Your task to perform on an android device: Search for logitech g pro on amazon, select the first entry, and add it to the cart. Image 0: 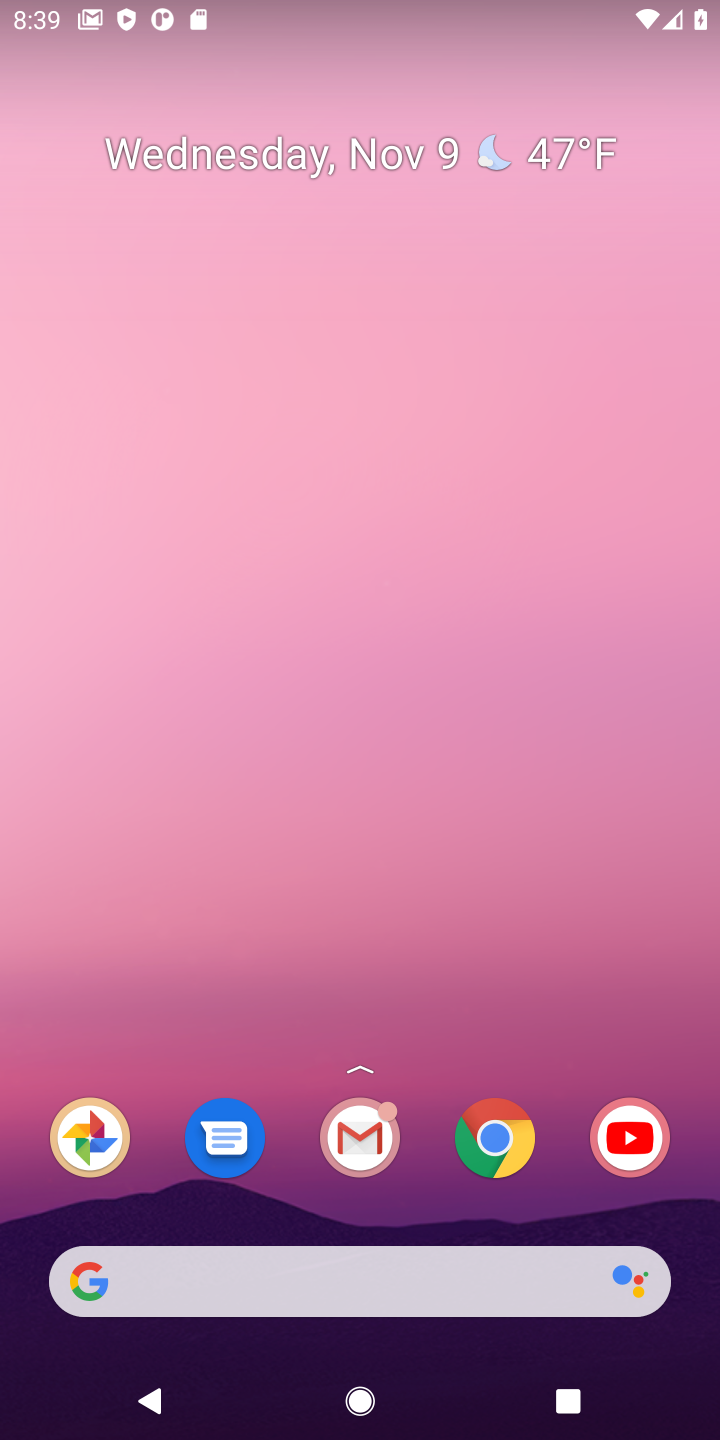
Step 0: drag from (379, 375) to (653, 1)
Your task to perform on an android device: Search for logitech g pro on amazon, select the first entry, and add it to the cart. Image 1: 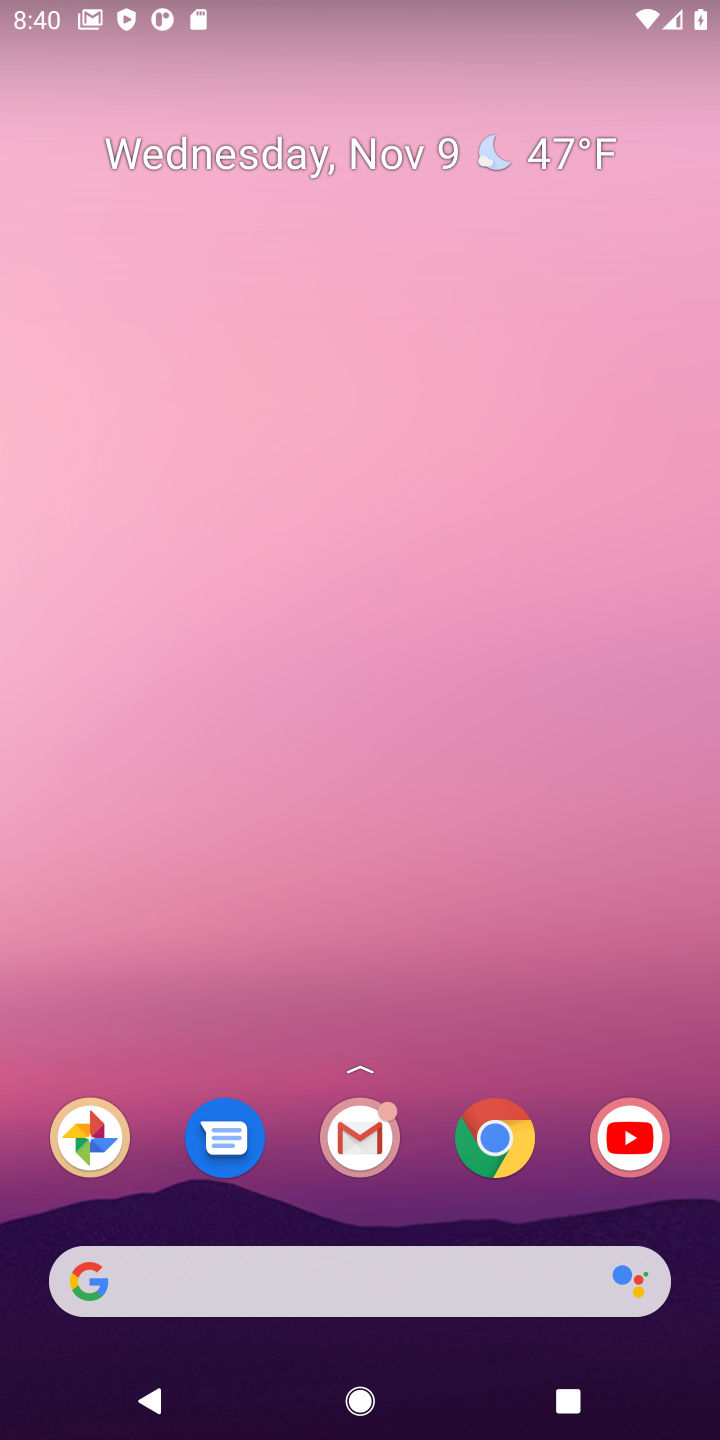
Step 1: drag from (416, 1089) to (132, 7)
Your task to perform on an android device: Search for logitech g pro on amazon, select the first entry, and add it to the cart. Image 2: 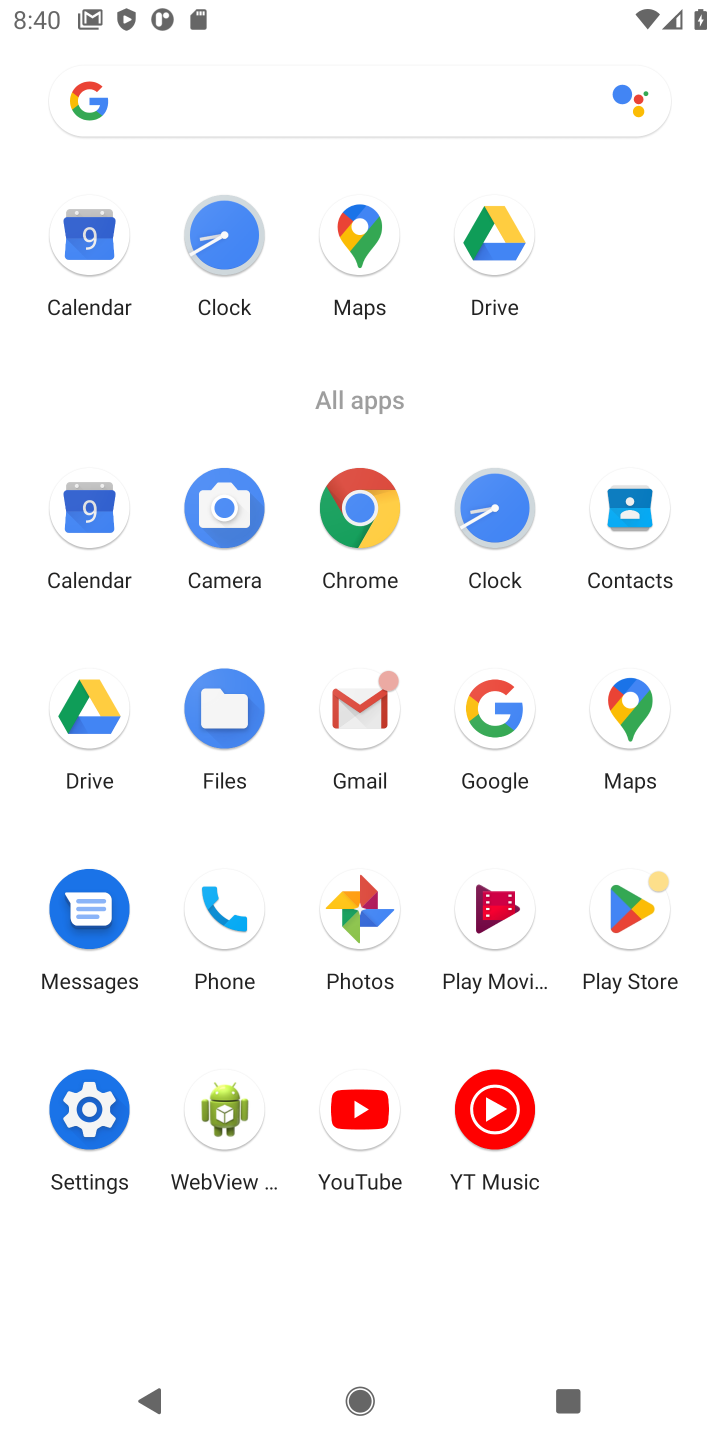
Step 2: click (345, 512)
Your task to perform on an android device: Search for logitech g pro on amazon, select the first entry, and add it to the cart. Image 3: 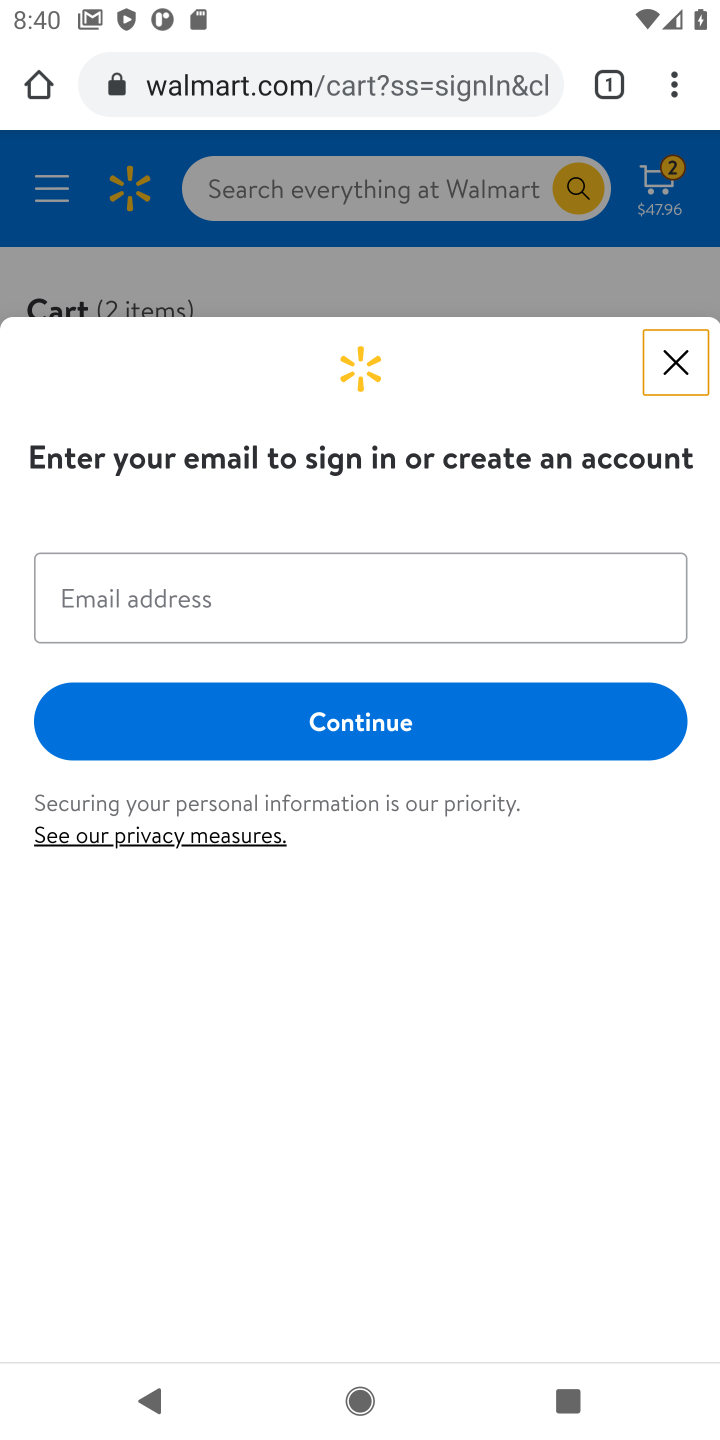
Step 3: click (430, 101)
Your task to perform on an android device: Search for logitech g pro on amazon, select the first entry, and add it to the cart. Image 4: 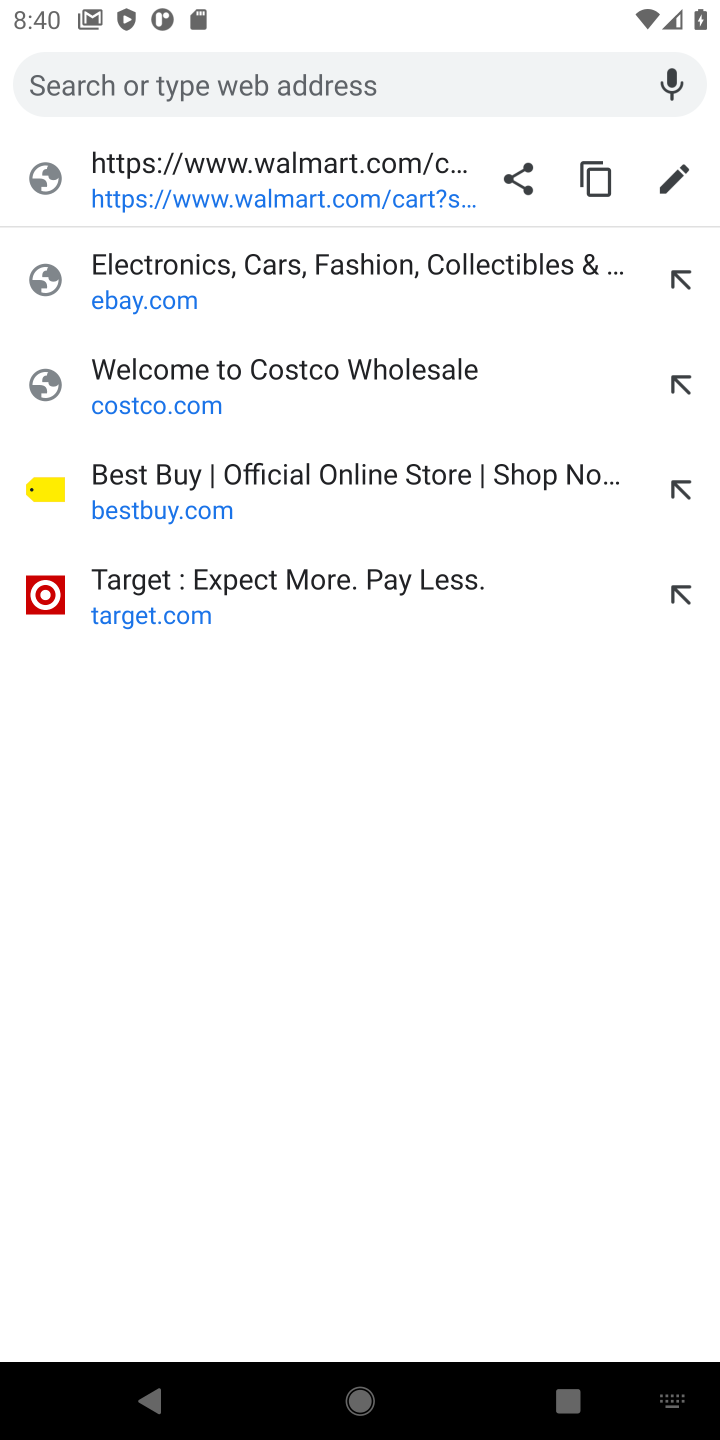
Step 4: type "amazon.com"
Your task to perform on an android device: Search for logitech g pro on amazon, select the first entry, and add it to the cart. Image 5: 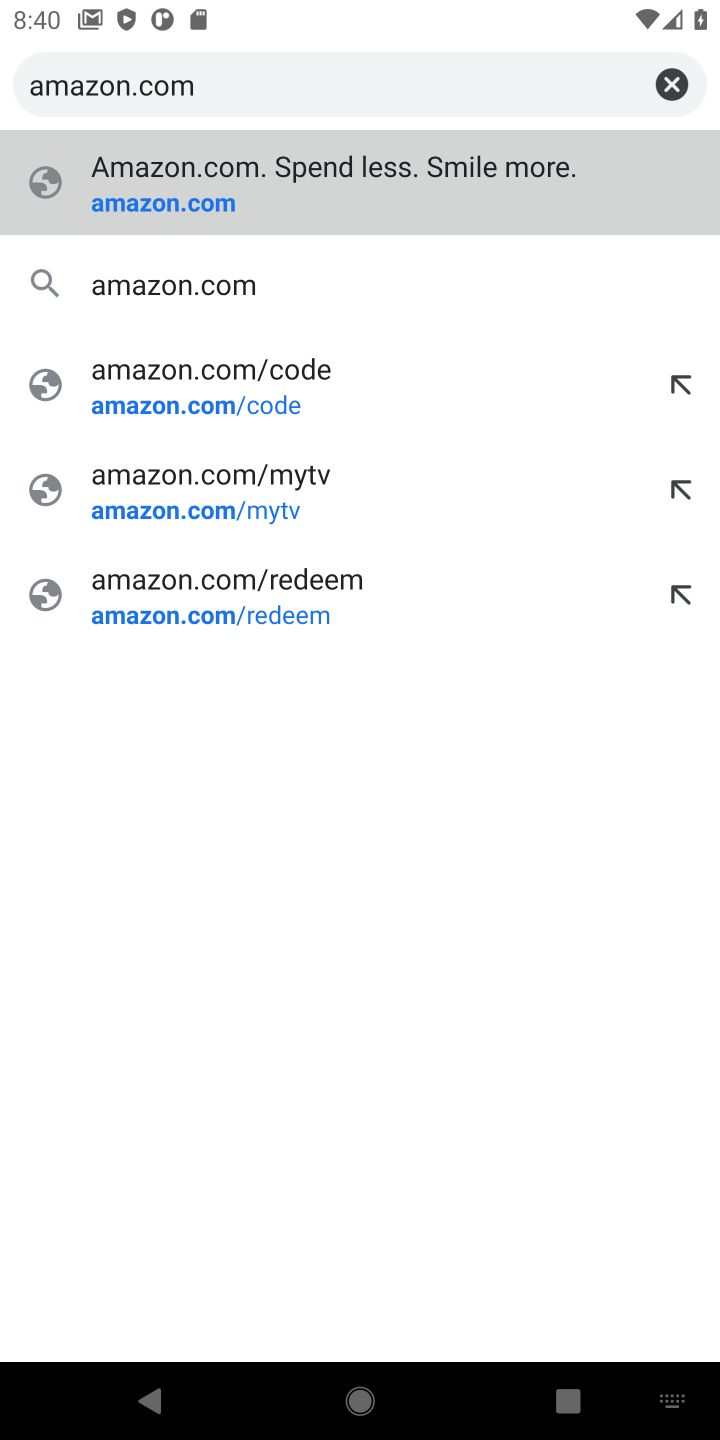
Step 5: press enter
Your task to perform on an android device: Search for logitech g pro on amazon, select the first entry, and add it to the cart. Image 6: 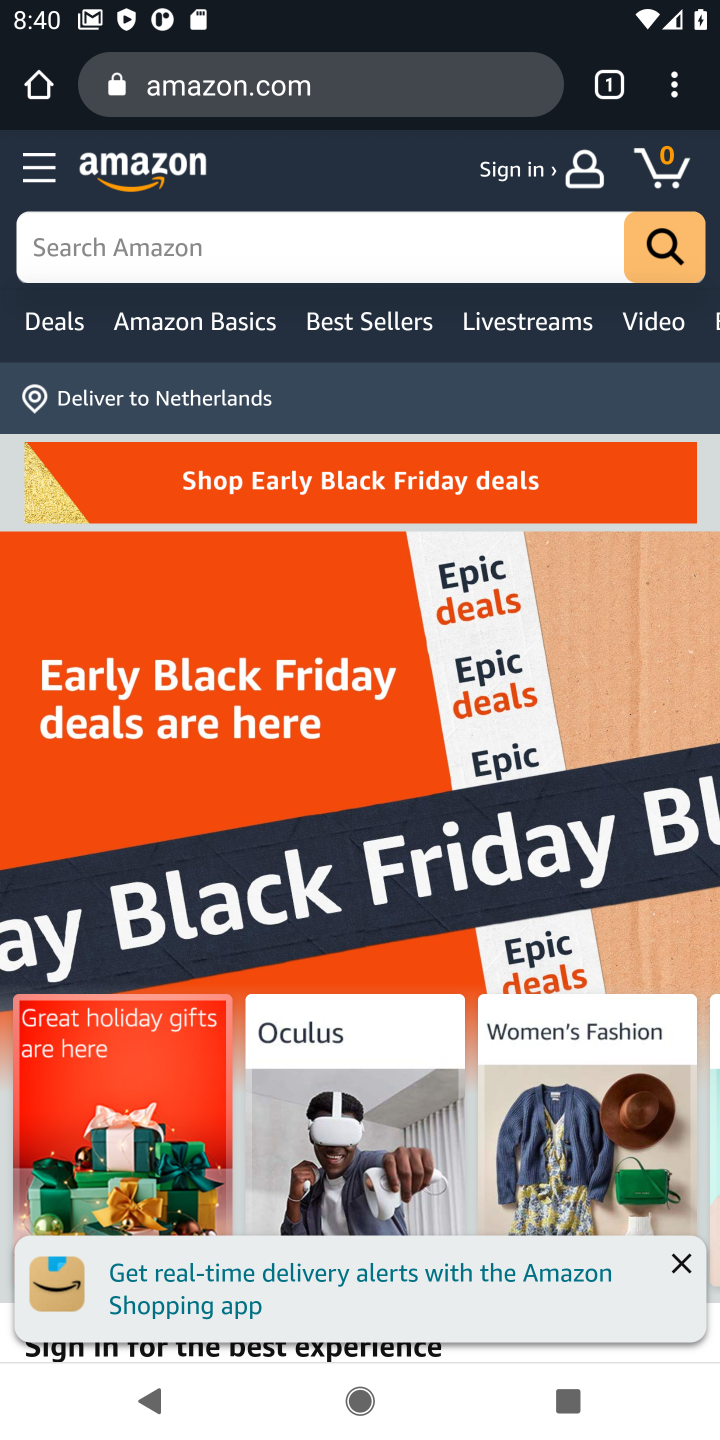
Step 6: click (292, 233)
Your task to perform on an android device: Search for logitech g pro on amazon, select the first entry, and add it to the cart. Image 7: 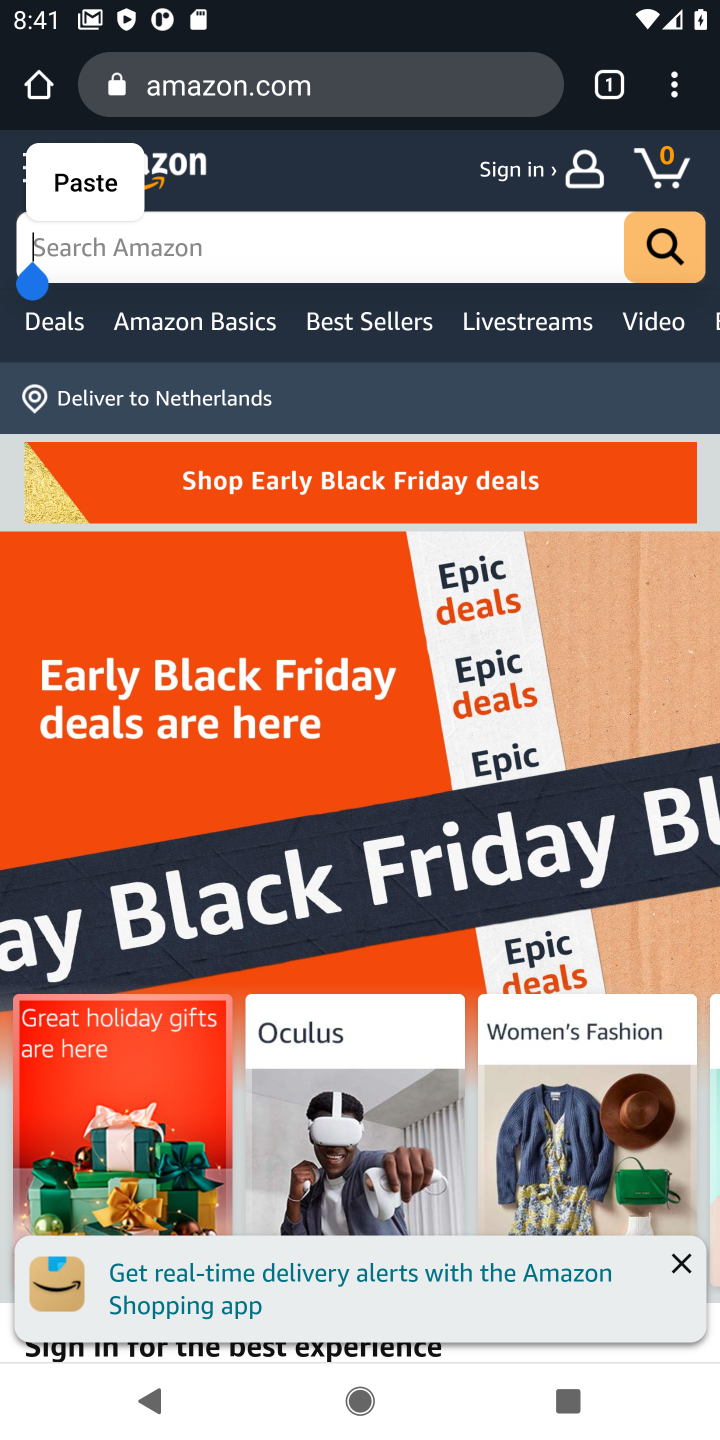
Step 7: type "logitech g prr"
Your task to perform on an android device: Search for logitech g pro on amazon, select the first entry, and add it to the cart. Image 8: 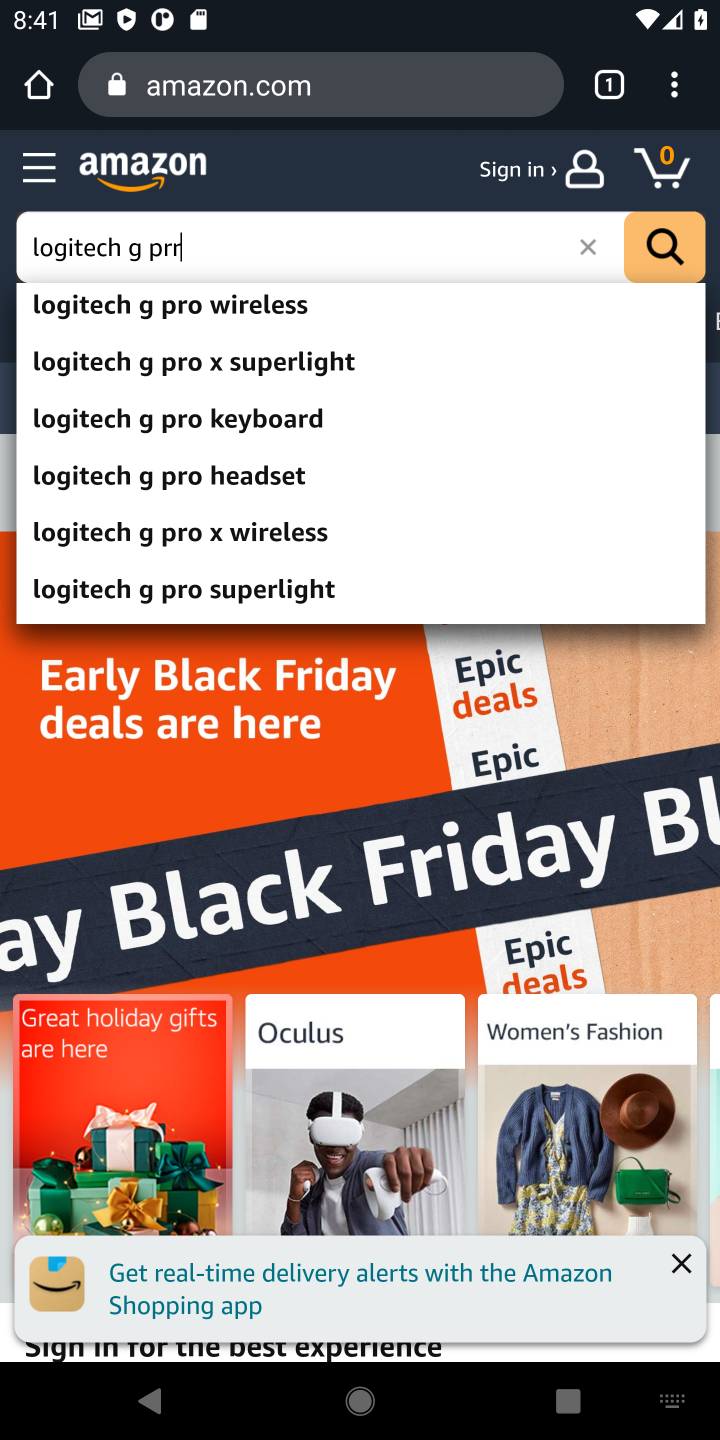
Step 8: click (176, 242)
Your task to perform on an android device: Search for logitech g pro on amazon, select the first entry, and add it to the cart. Image 9: 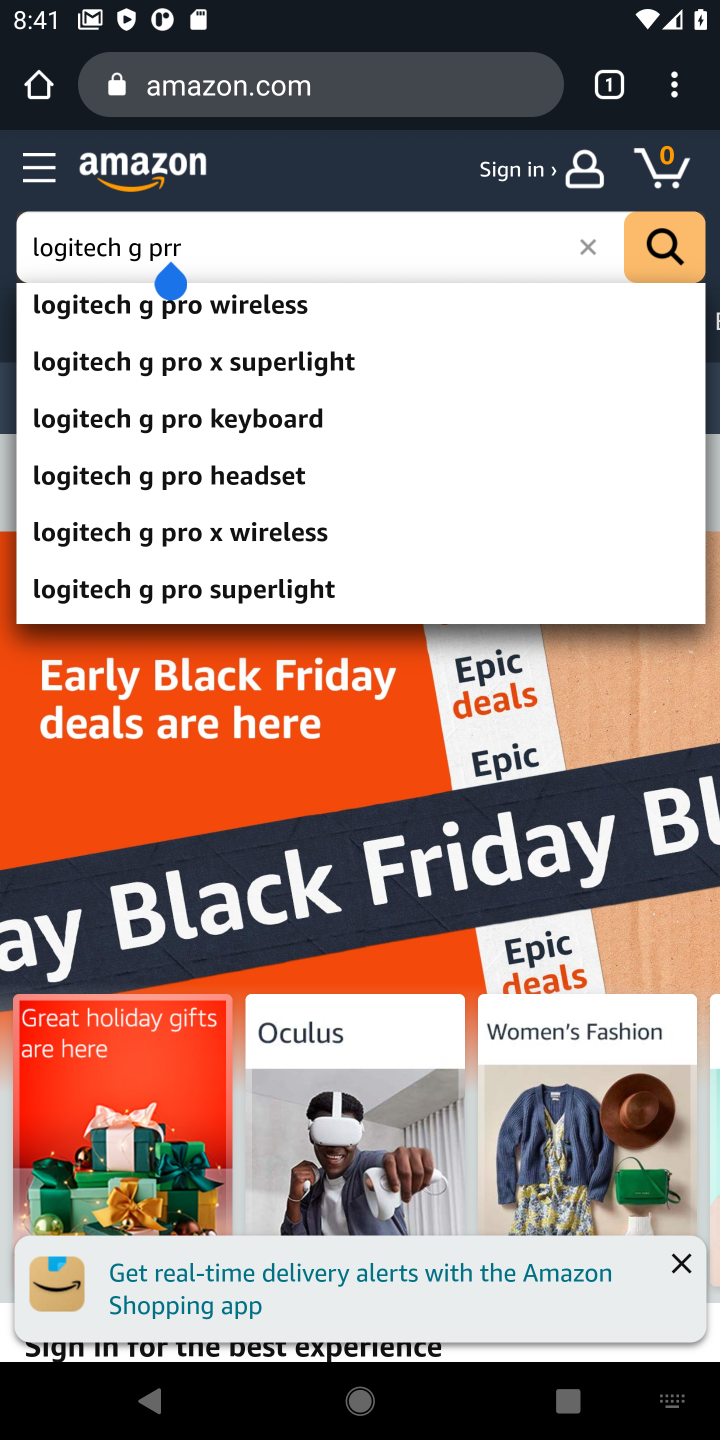
Step 9: click (376, 244)
Your task to perform on an android device: Search for logitech g pro on amazon, select the first entry, and add it to the cart. Image 10: 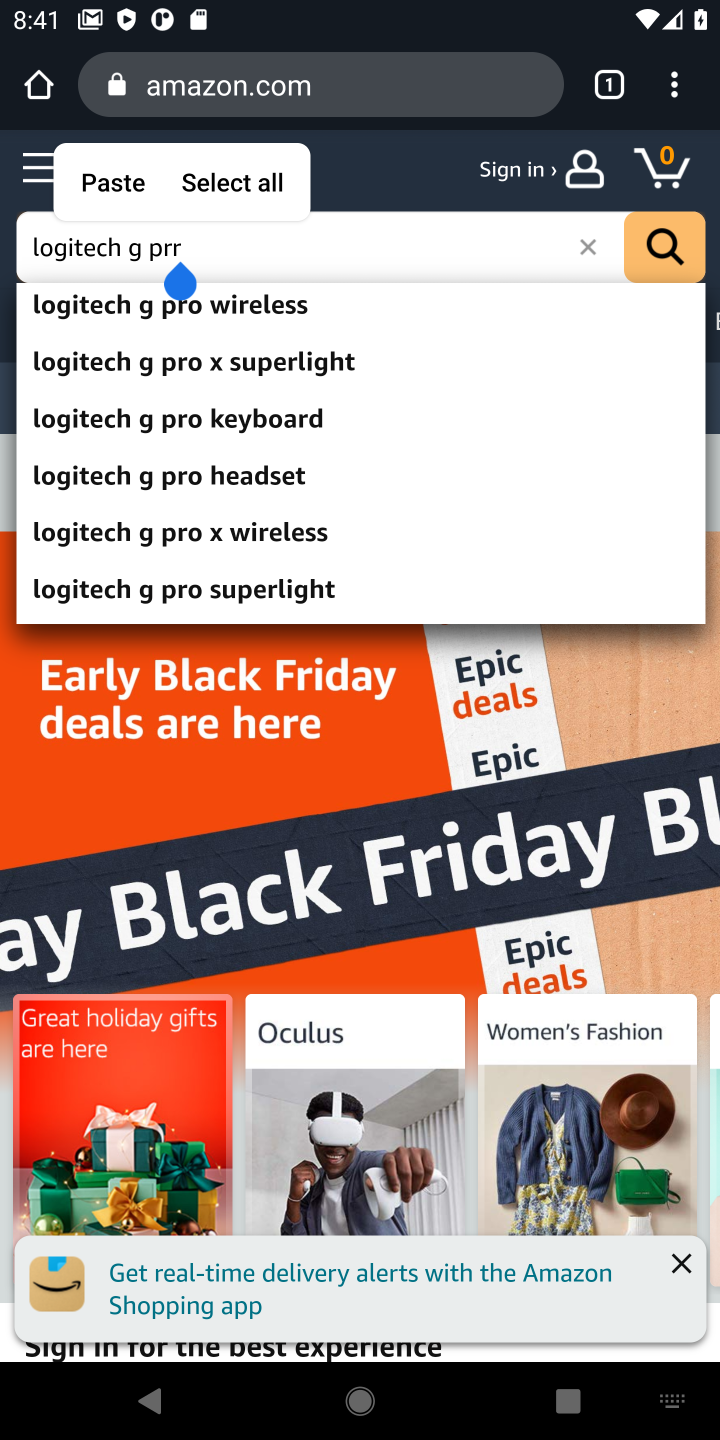
Step 10: click (577, 237)
Your task to perform on an android device: Search for logitech g pro on amazon, select the first entry, and add it to the cart. Image 11: 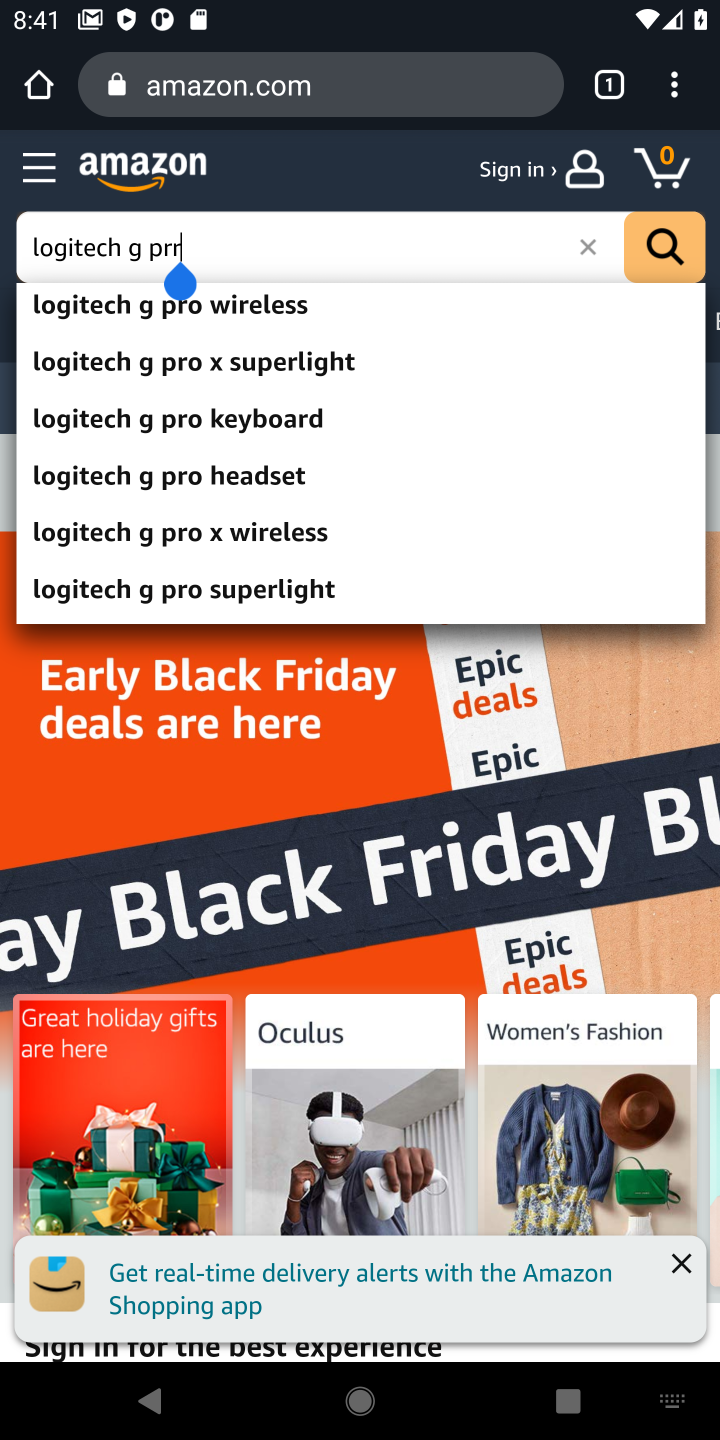
Step 11: type "logitech g pro"
Your task to perform on an android device: Search for logitech g pro on amazon, select the first entry, and add it to the cart. Image 12: 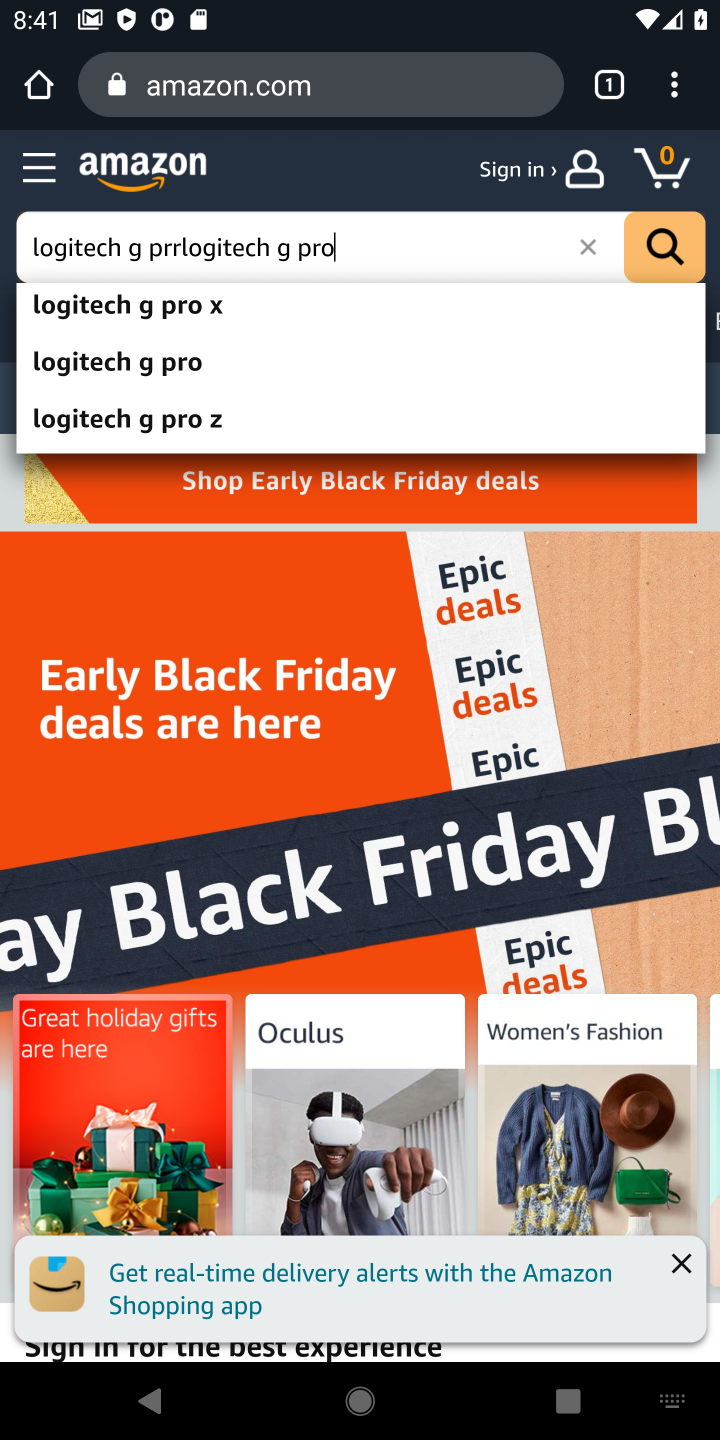
Step 12: press enter
Your task to perform on an android device: Search for logitech g pro on amazon, select the first entry, and add it to the cart. Image 13: 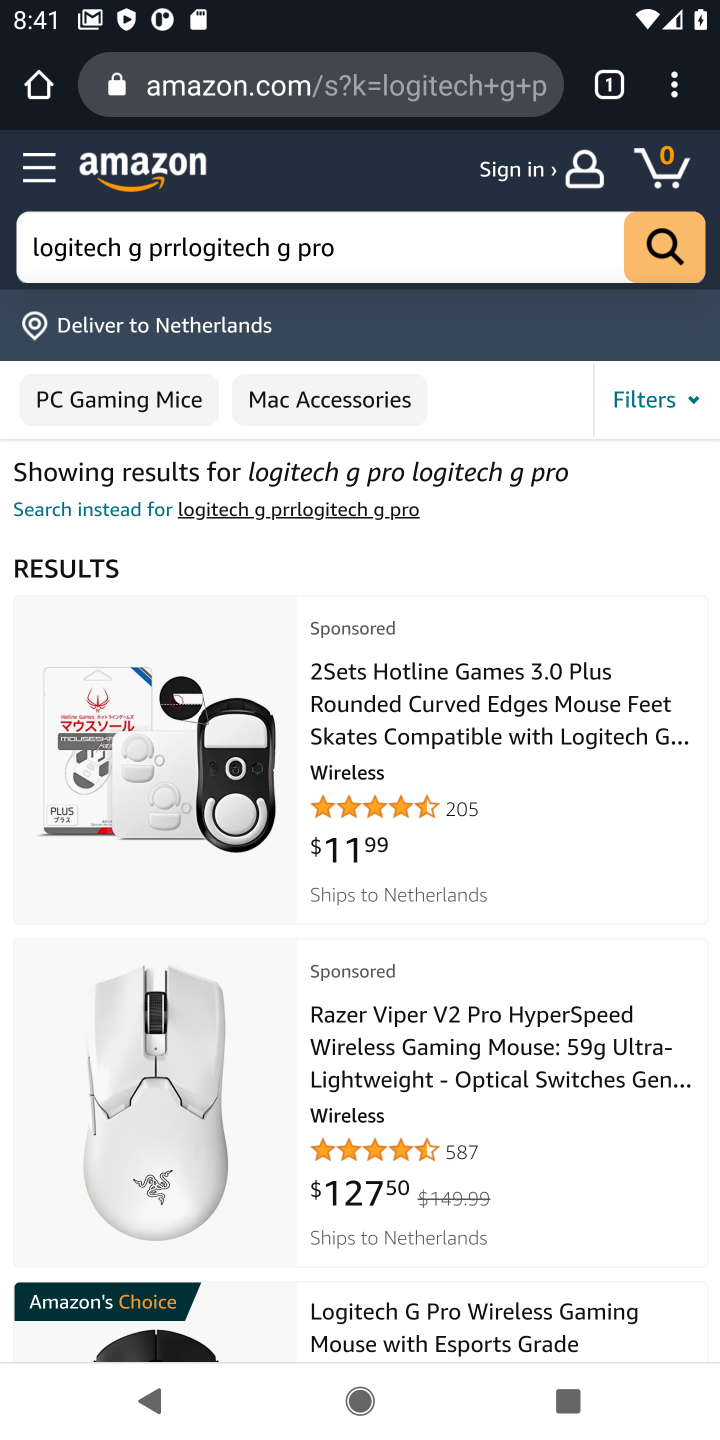
Step 13: click (535, 254)
Your task to perform on an android device: Search for logitech g pro on amazon, select the first entry, and add it to the cart. Image 14: 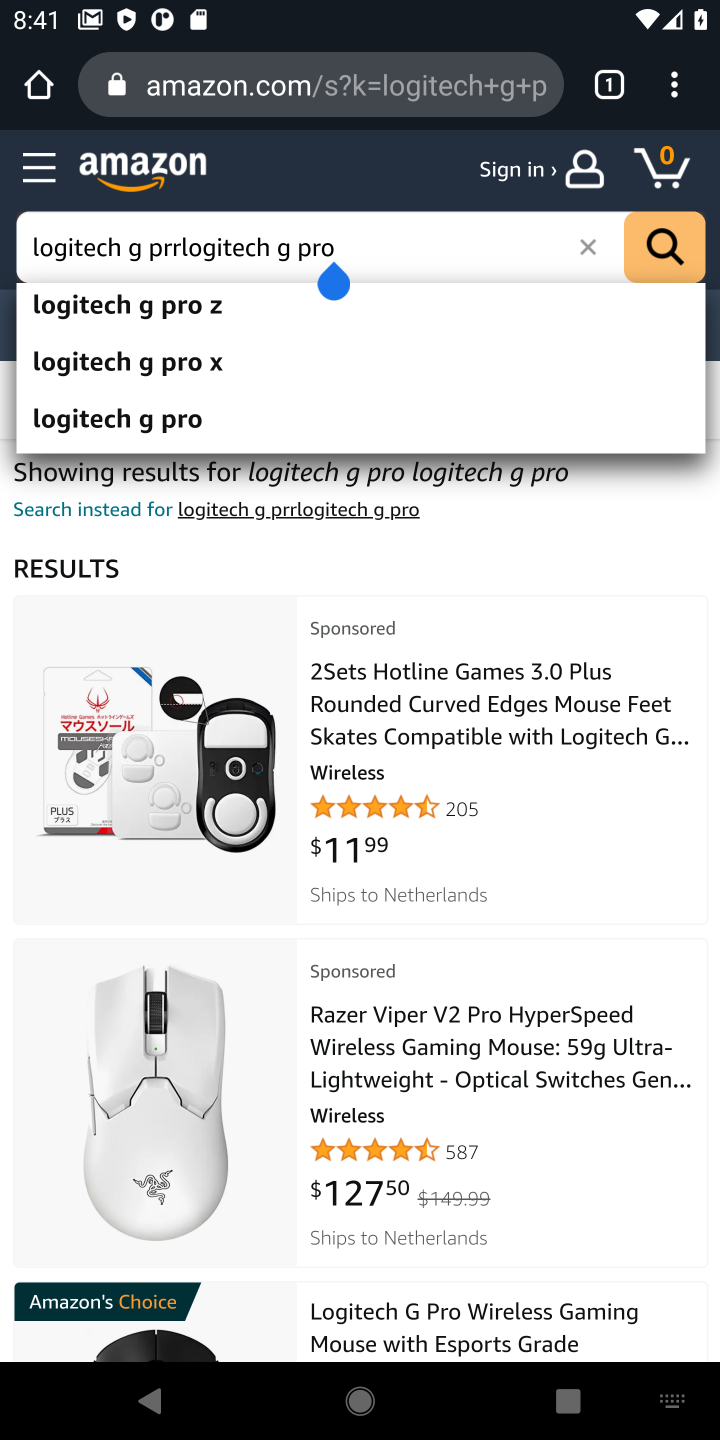
Step 14: click (581, 235)
Your task to perform on an android device: Search for logitech g pro on amazon, select the first entry, and add it to the cart. Image 15: 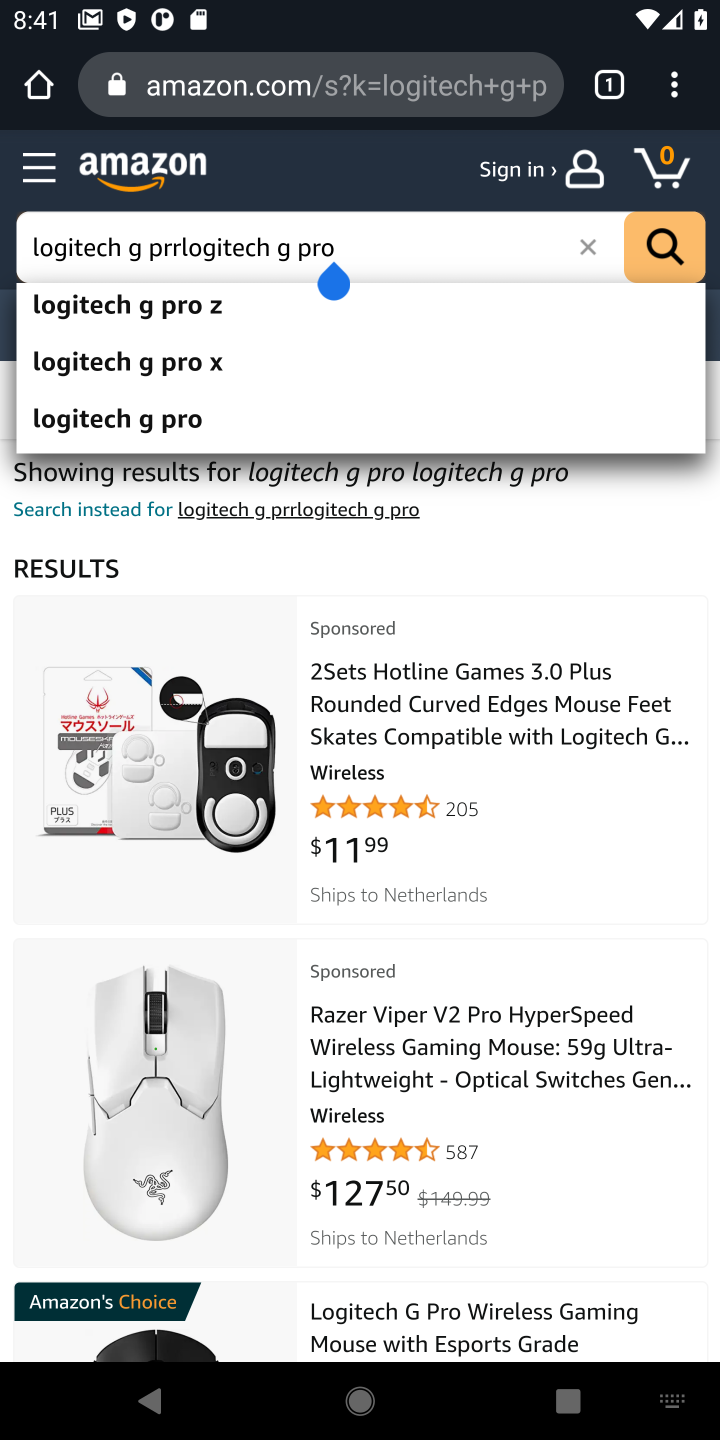
Step 15: click (584, 244)
Your task to perform on an android device: Search for logitech g pro on amazon, select the first entry, and add it to the cart. Image 16: 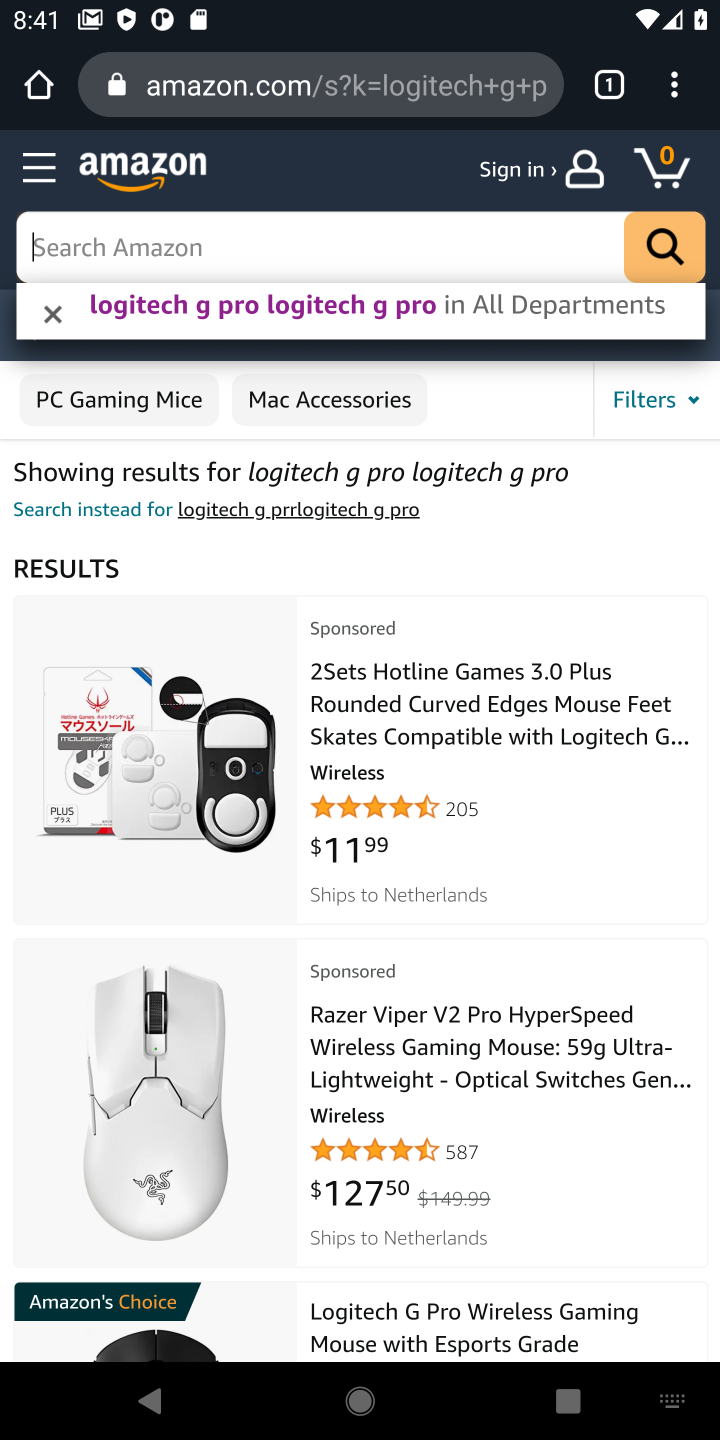
Step 16: type "logitech g pro"
Your task to perform on an android device: Search for logitech g pro on amazon, select the first entry, and add it to the cart. Image 17: 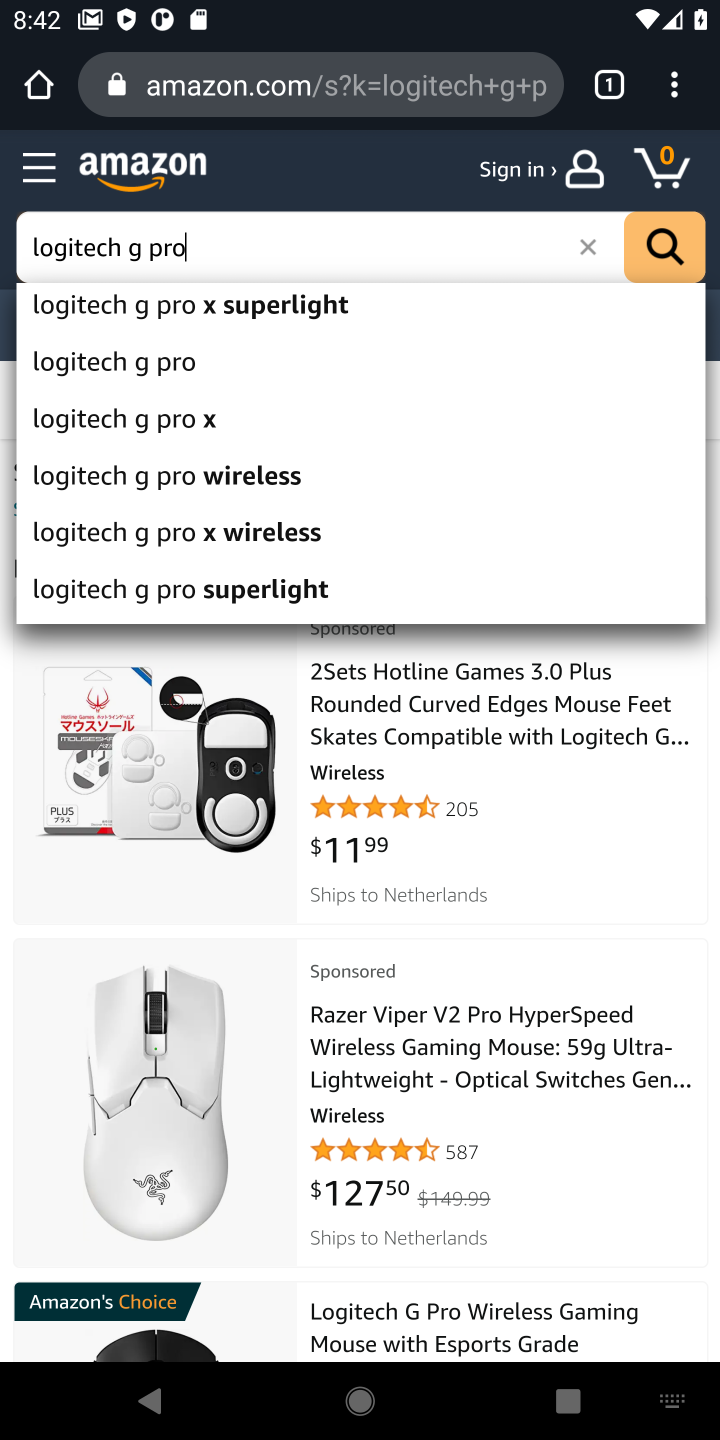
Step 17: press enter
Your task to perform on an android device: Search for logitech g pro on amazon, select the first entry, and add it to the cart. Image 18: 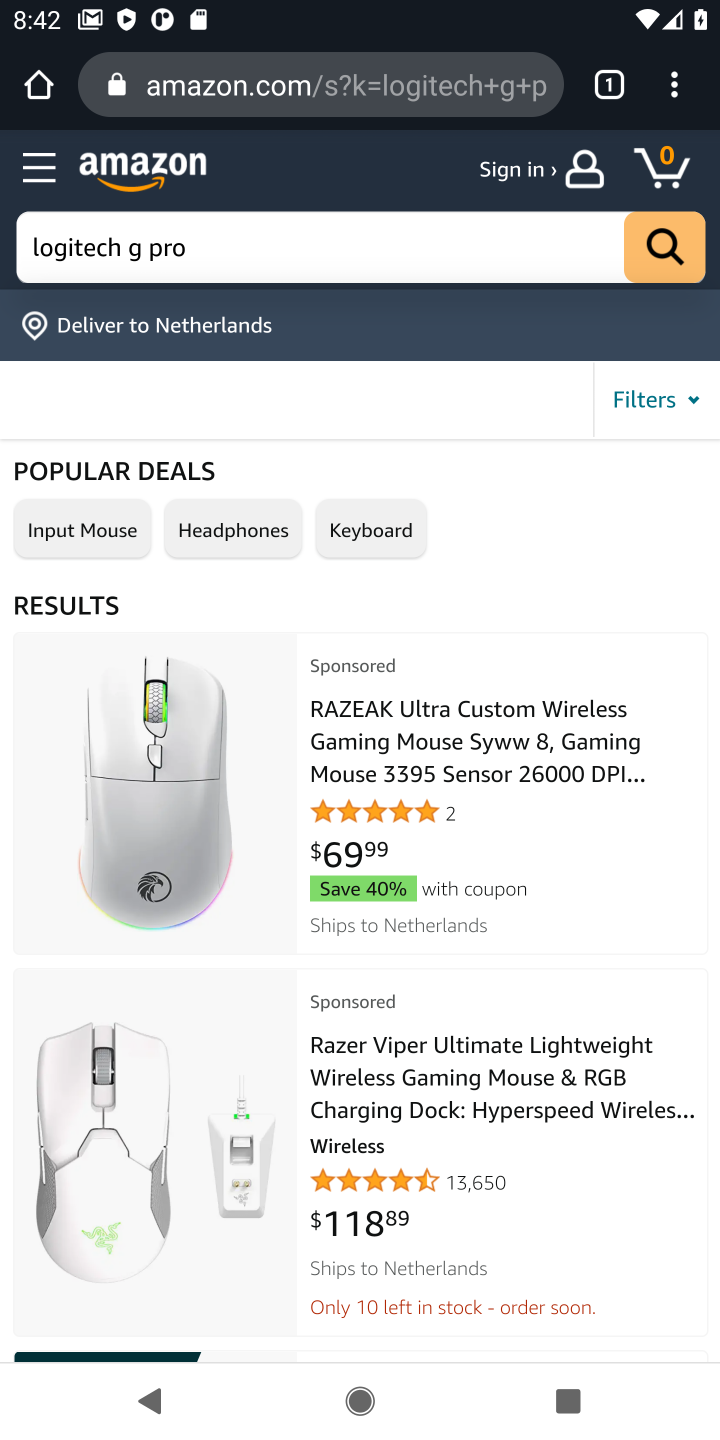
Step 18: drag from (362, 1285) to (236, 325)
Your task to perform on an android device: Search for logitech g pro on amazon, select the first entry, and add it to the cart. Image 19: 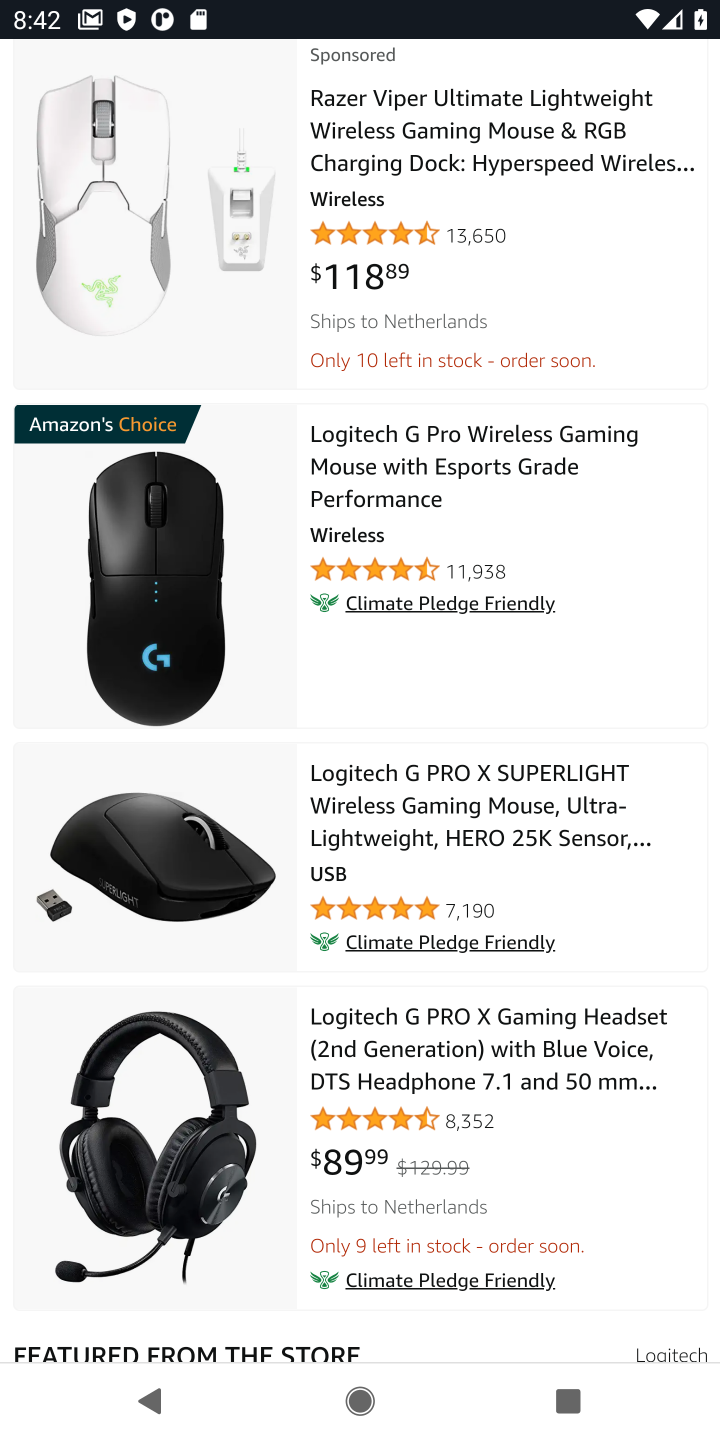
Step 19: click (397, 461)
Your task to perform on an android device: Search for logitech g pro on amazon, select the first entry, and add it to the cart. Image 20: 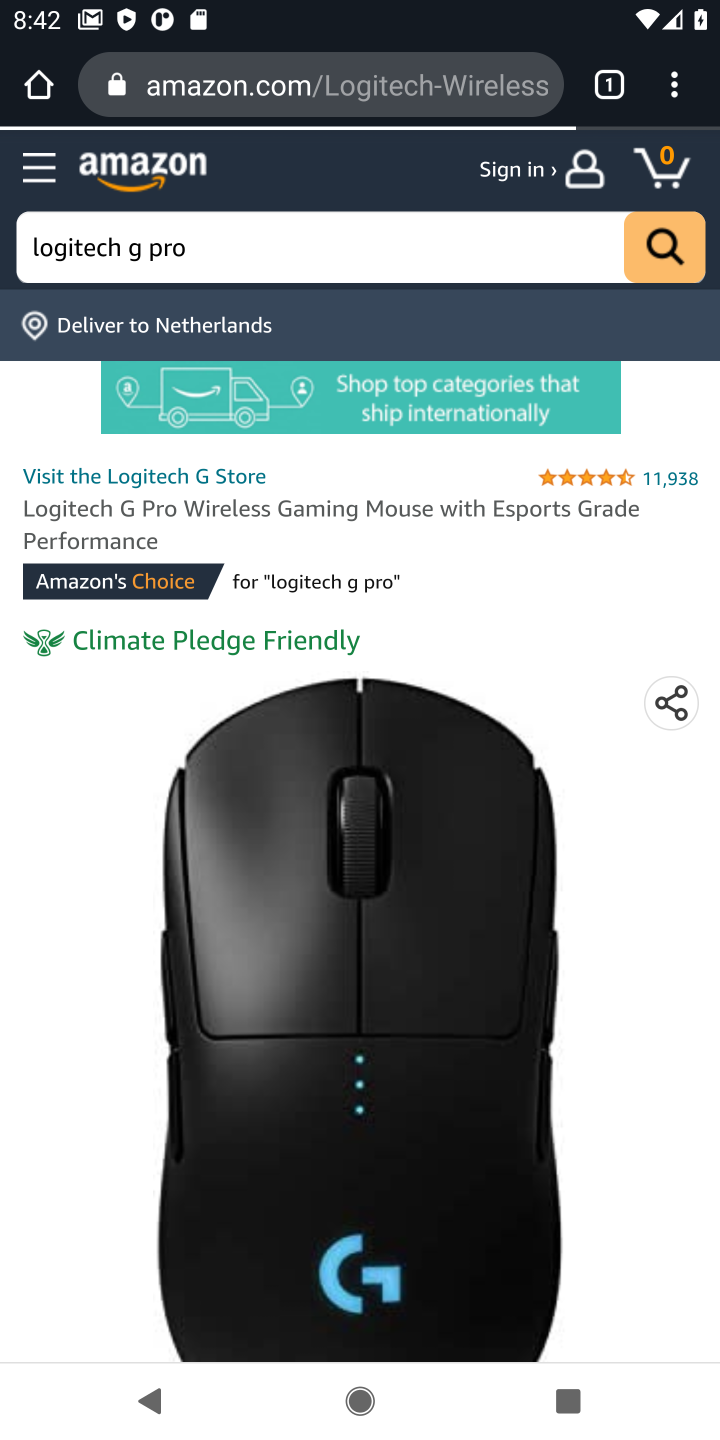
Step 20: task complete